Your task to perform on an android device: Open Youtube and go to "Your channel" Image 0: 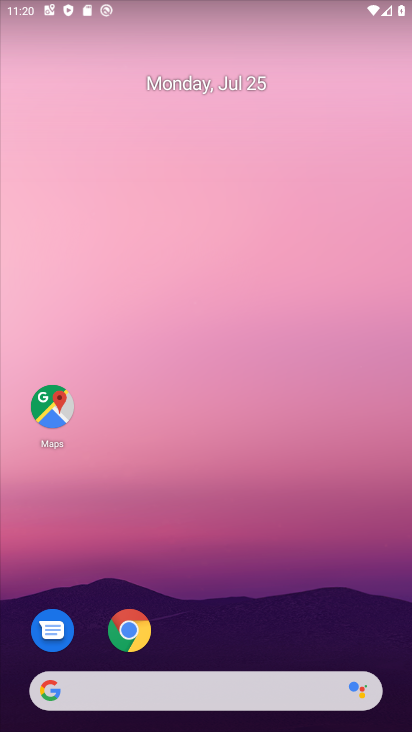
Step 0: press home button
Your task to perform on an android device: Open Youtube and go to "Your channel" Image 1: 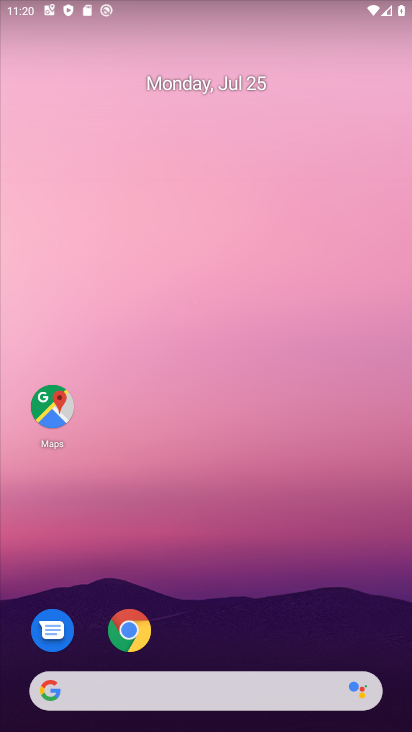
Step 1: drag from (351, 614) to (408, 134)
Your task to perform on an android device: Open Youtube and go to "Your channel" Image 2: 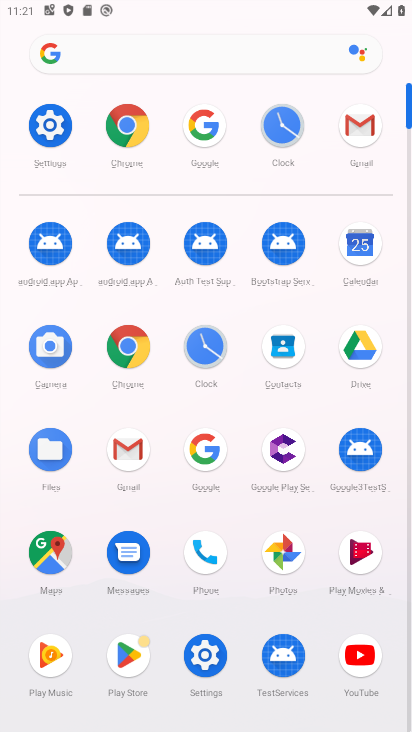
Step 2: click (361, 658)
Your task to perform on an android device: Open Youtube and go to "Your channel" Image 3: 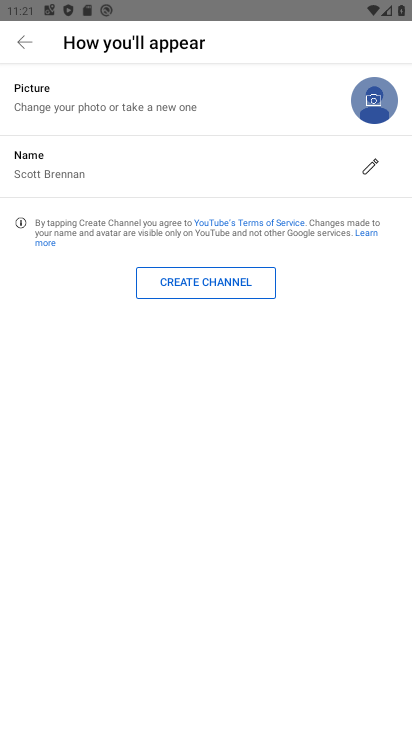
Step 3: task complete